Your task to perform on an android device: turn notification dots on Image 0: 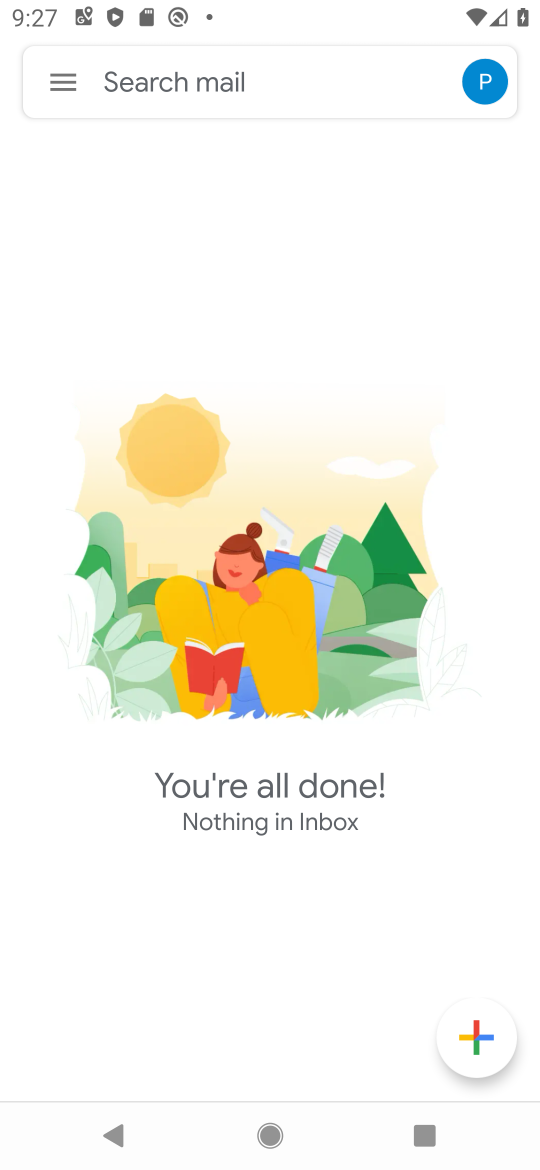
Step 0: press home button
Your task to perform on an android device: turn notification dots on Image 1: 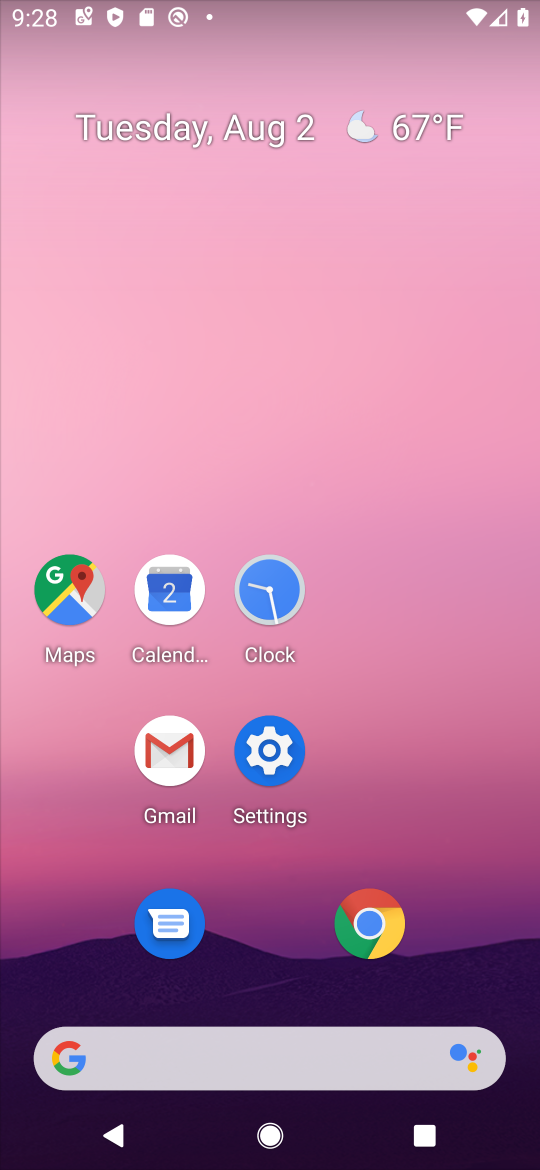
Step 1: click (280, 730)
Your task to perform on an android device: turn notification dots on Image 2: 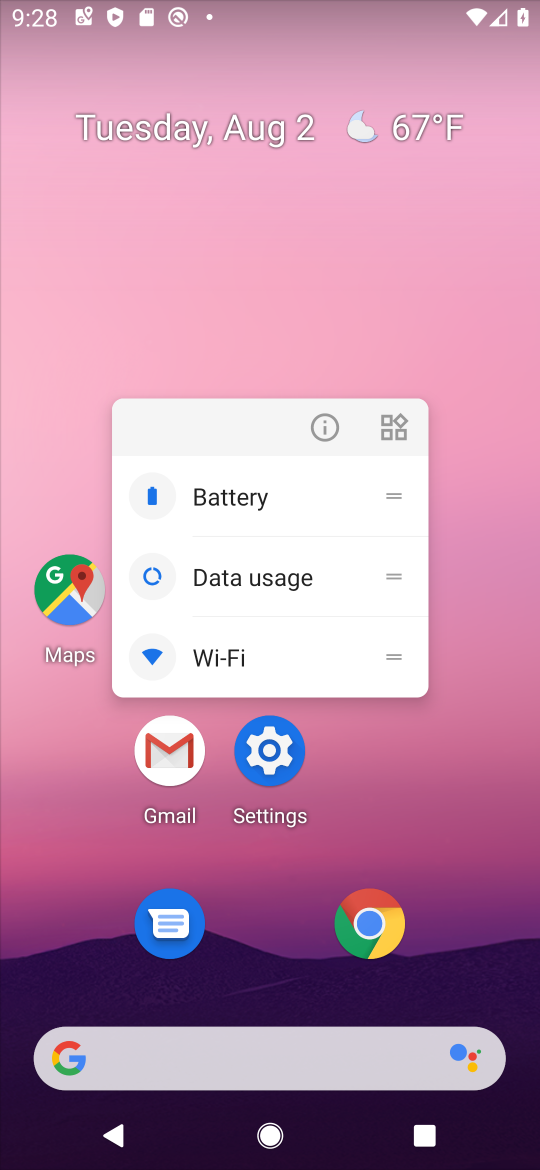
Step 2: click (275, 750)
Your task to perform on an android device: turn notification dots on Image 3: 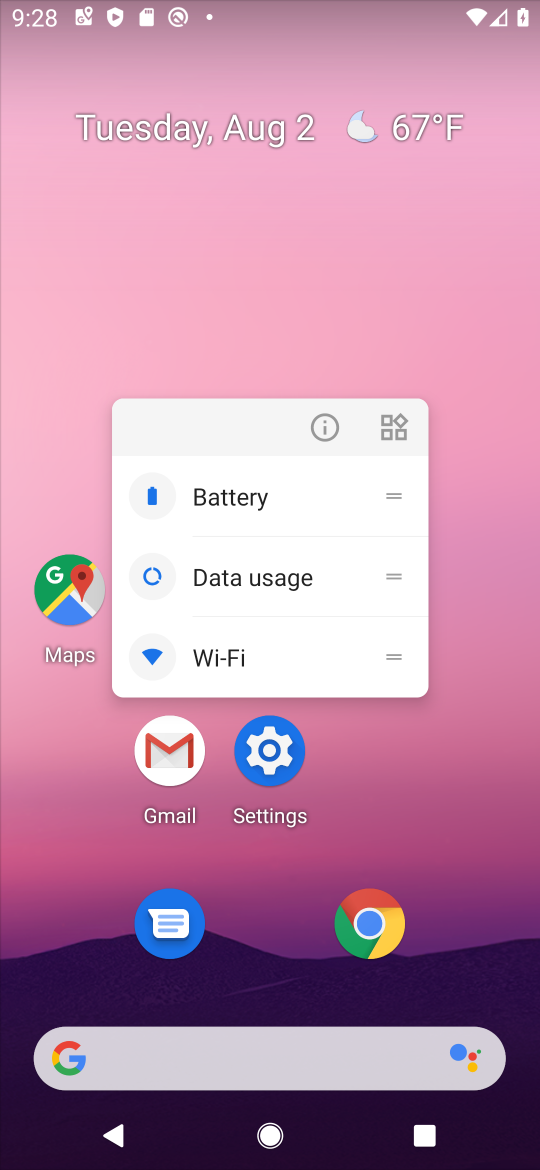
Step 3: click (275, 750)
Your task to perform on an android device: turn notification dots on Image 4: 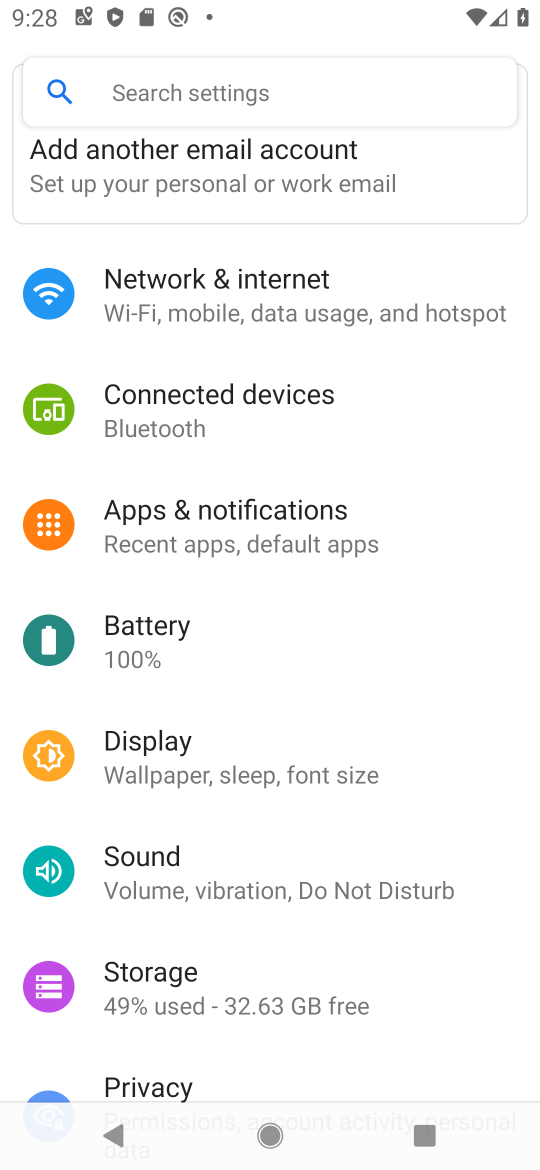
Step 4: click (153, 286)
Your task to perform on an android device: turn notification dots on Image 5: 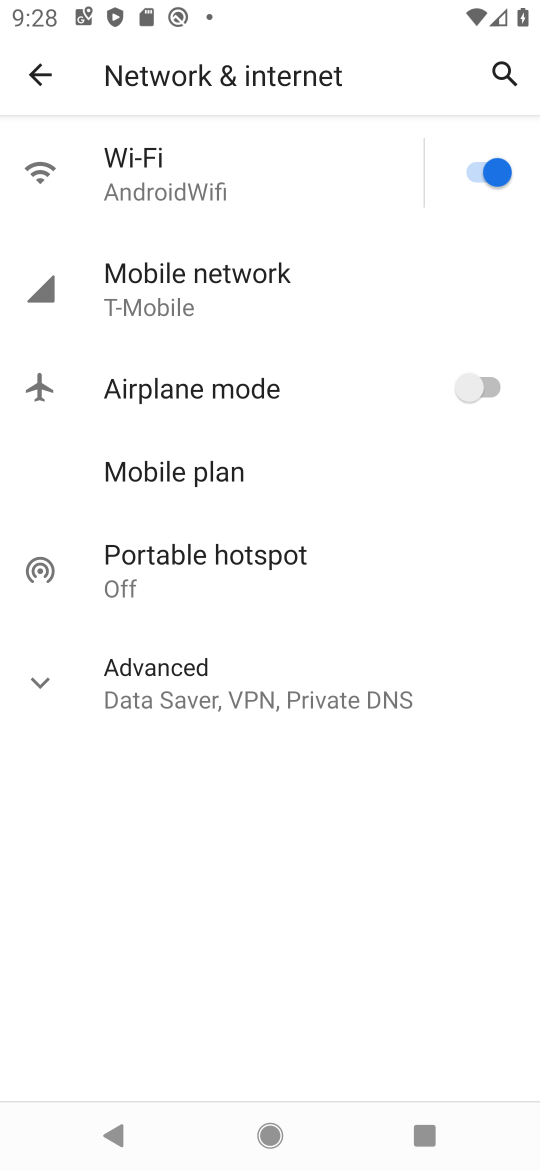
Step 5: click (27, 59)
Your task to perform on an android device: turn notification dots on Image 6: 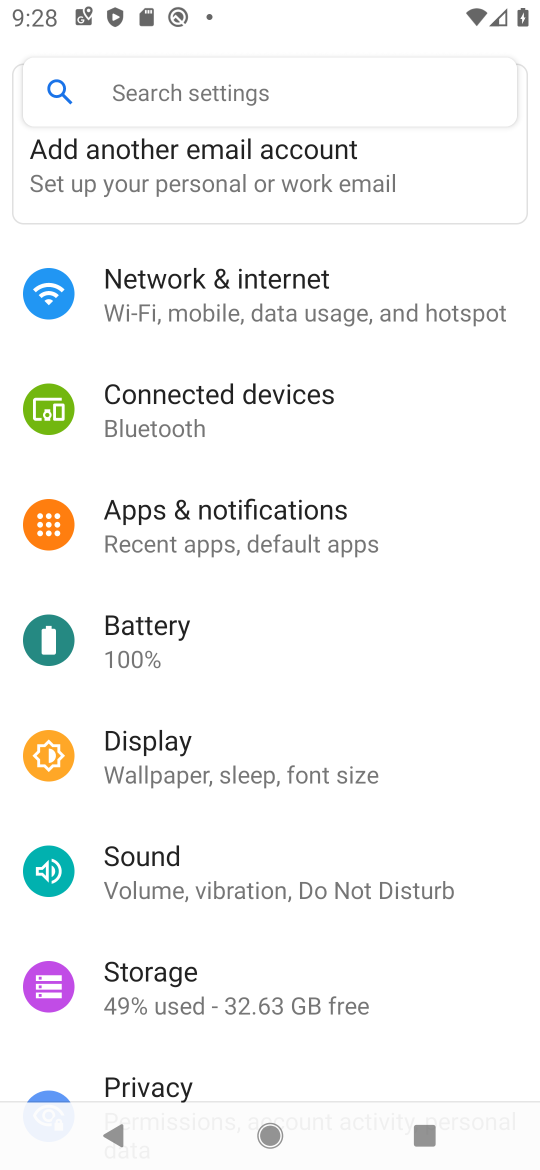
Step 6: click (159, 485)
Your task to perform on an android device: turn notification dots on Image 7: 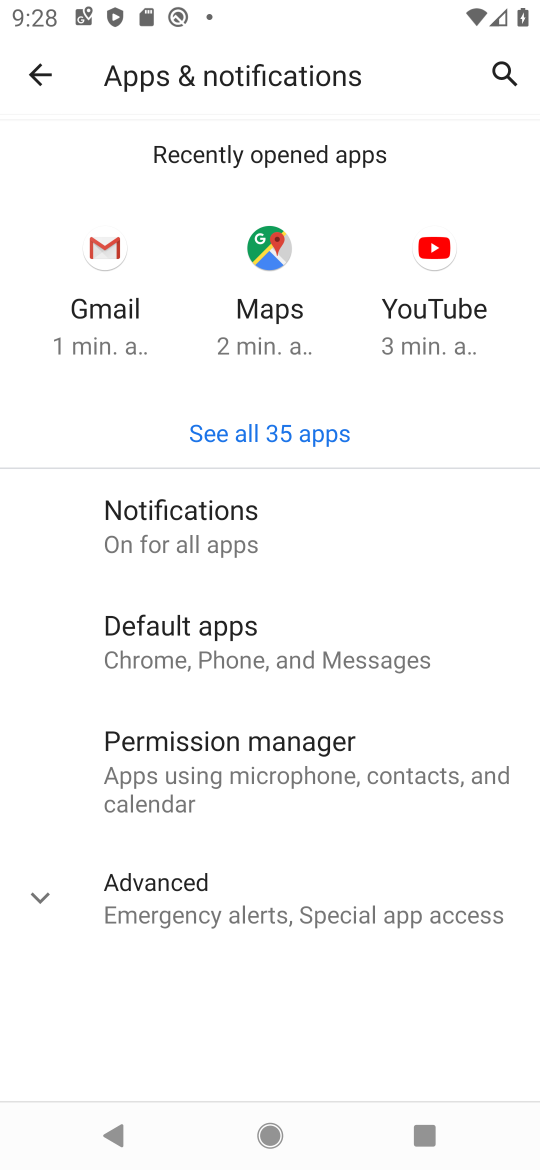
Step 7: click (193, 523)
Your task to perform on an android device: turn notification dots on Image 8: 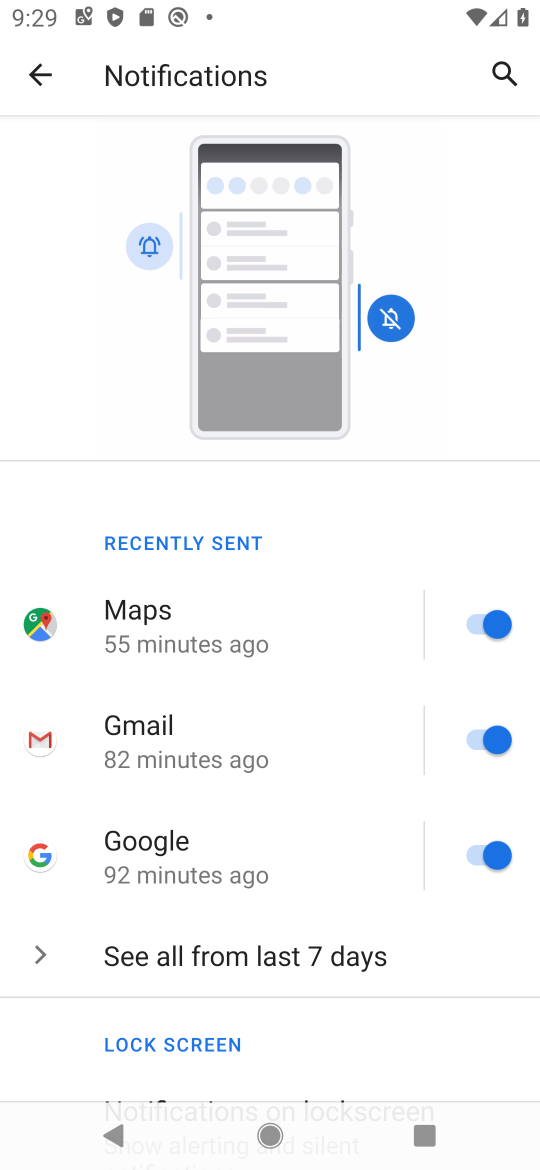
Step 8: drag from (337, 970) to (409, 471)
Your task to perform on an android device: turn notification dots on Image 9: 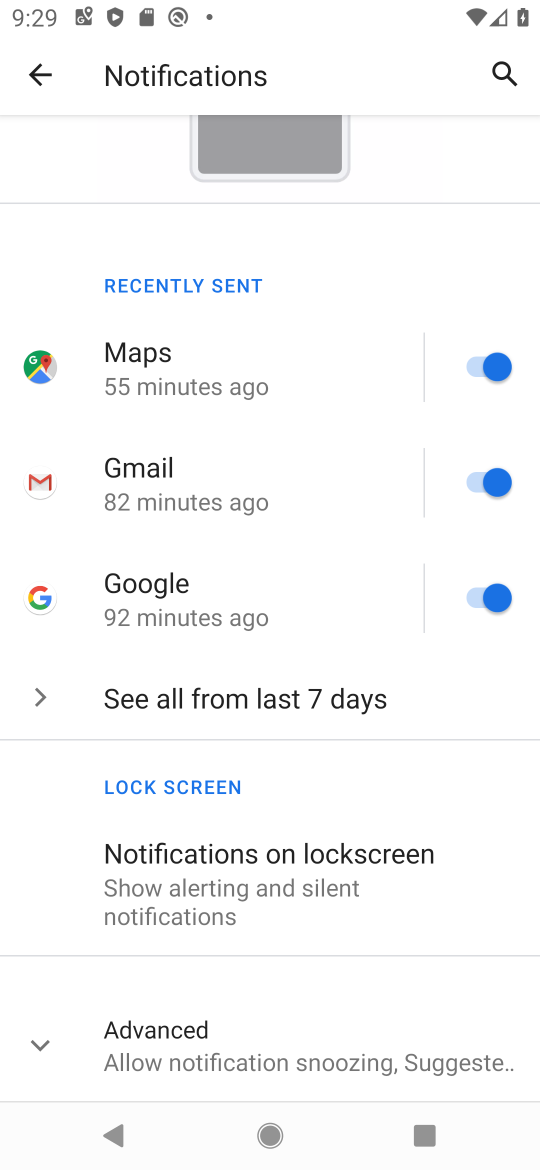
Step 9: drag from (344, 868) to (344, 376)
Your task to perform on an android device: turn notification dots on Image 10: 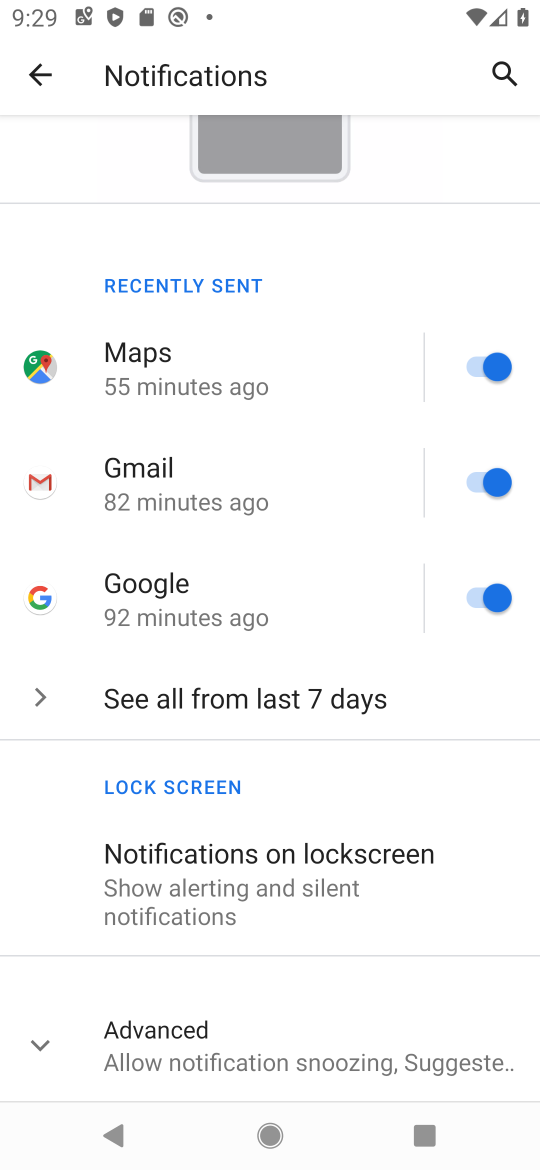
Step 10: click (42, 1044)
Your task to perform on an android device: turn notification dots on Image 11: 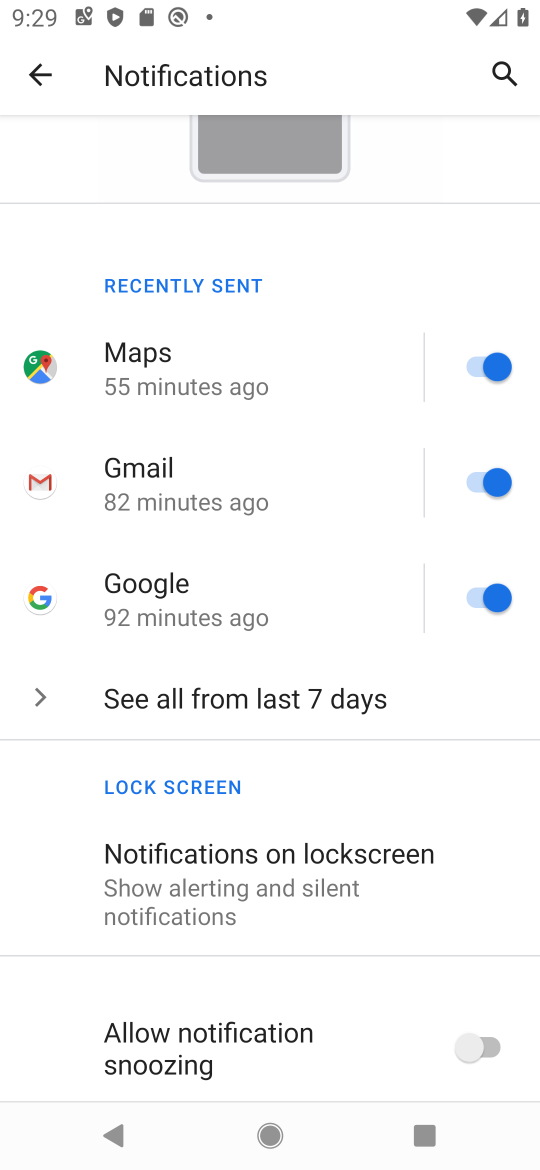
Step 11: task complete